Your task to perform on an android device: Open CNN.com Image 0: 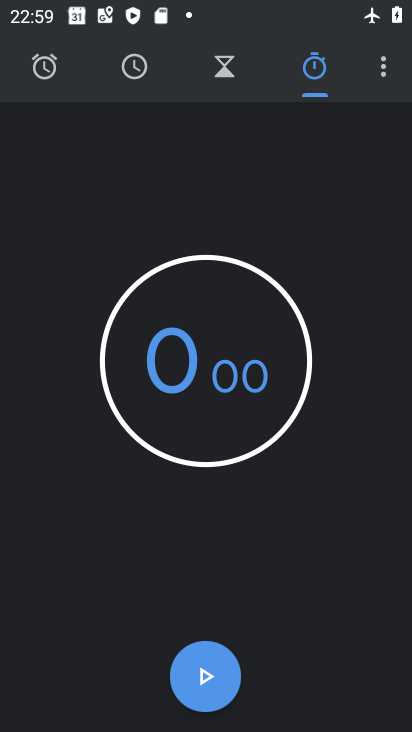
Step 0: press home button
Your task to perform on an android device: Open CNN.com Image 1: 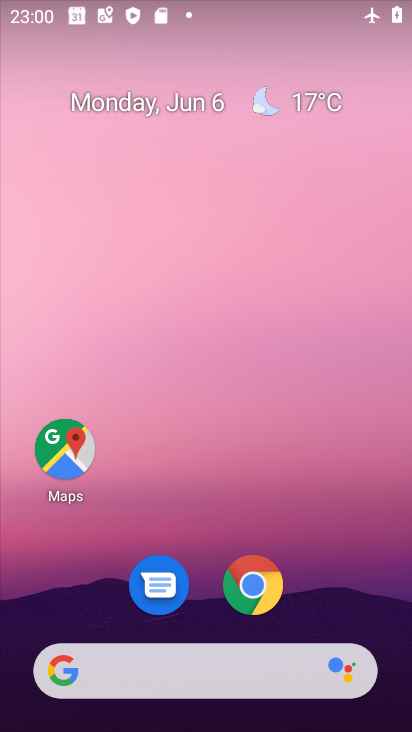
Step 1: click (163, 671)
Your task to perform on an android device: Open CNN.com Image 2: 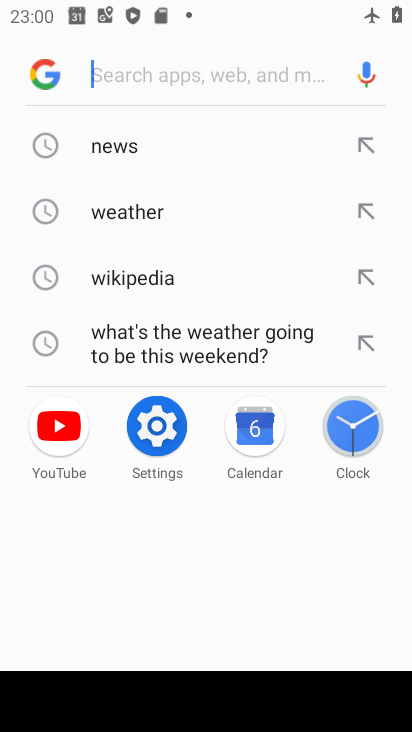
Step 2: type "cnn.com"
Your task to perform on an android device: Open CNN.com Image 3: 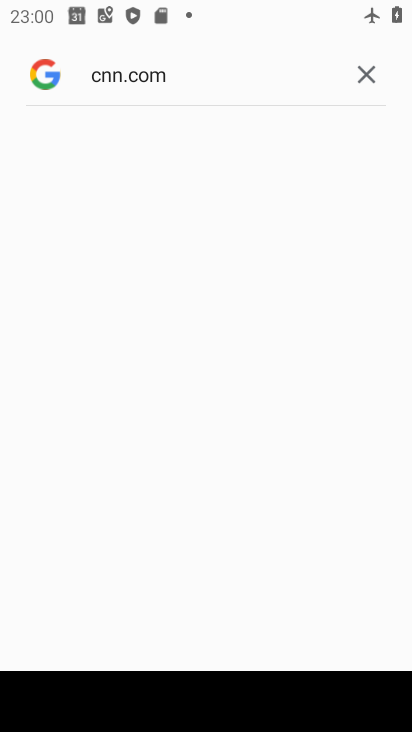
Step 3: task complete